Your task to perform on an android device: empty trash in google photos Image 0: 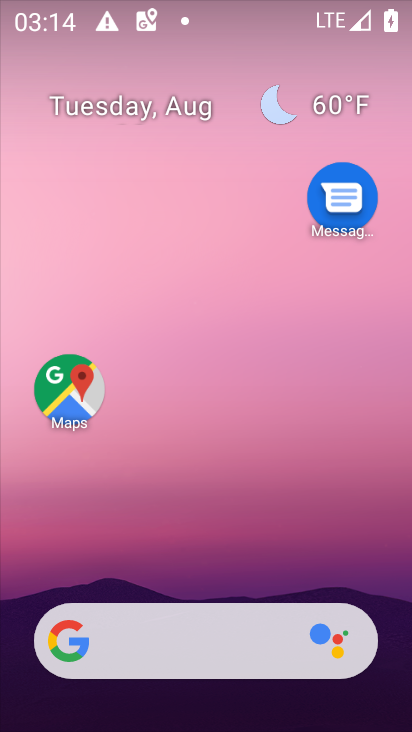
Step 0: drag from (227, 590) to (256, 66)
Your task to perform on an android device: empty trash in google photos Image 1: 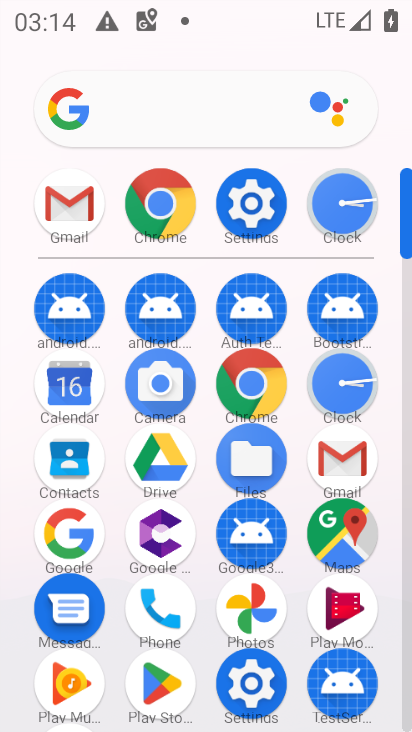
Step 1: click (241, 603)
Your task to perform on an android device: empty trash in google photos Image 2: 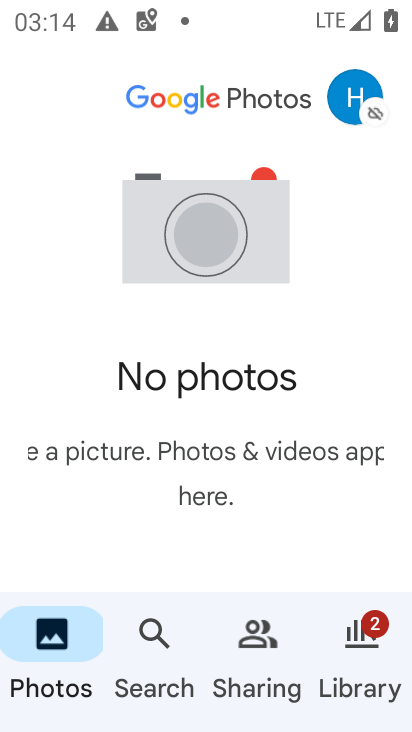
Step 2: task complete